Your task to perform on an android device: Open Chrome and go to the settings page Image 0: 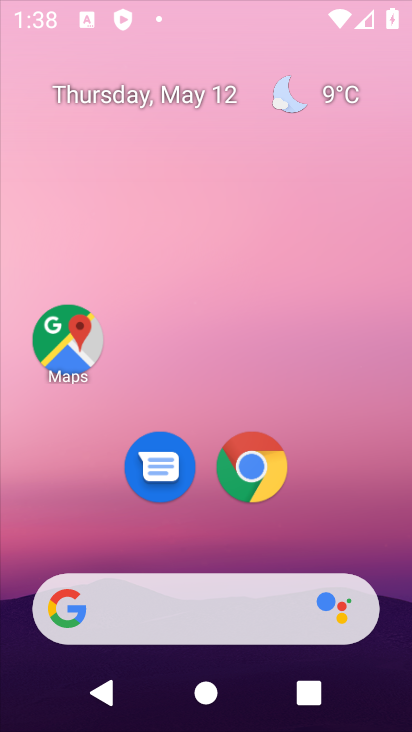
Step 0: click (255, 216)
Your task to perform on an android device: Open Chrome and go to the settings page Image 1: 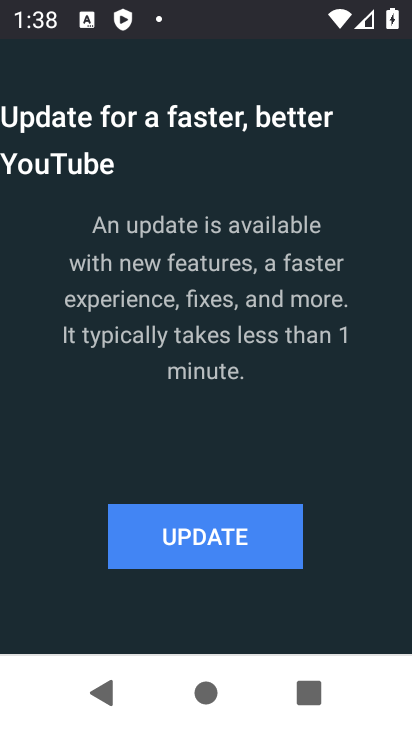
Step 1: press back button
Your task to perform on an android device: Open Chrome and go to the settings page Image 2: 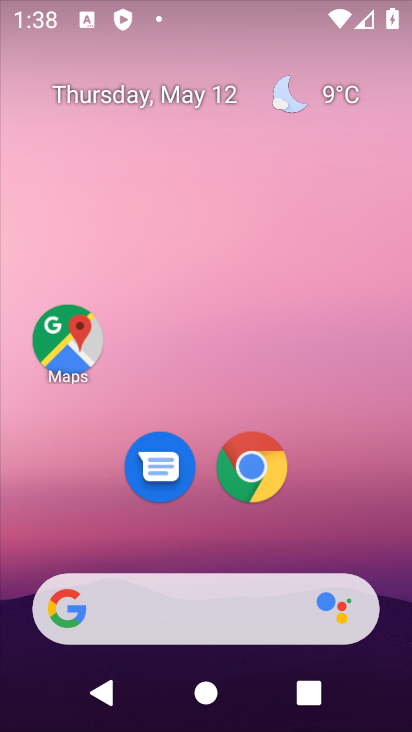
Step 2: drag from (270, 502) to (265, 264)
Your task to perform on an android device: Open Chrome and go to the settings page Image 3: 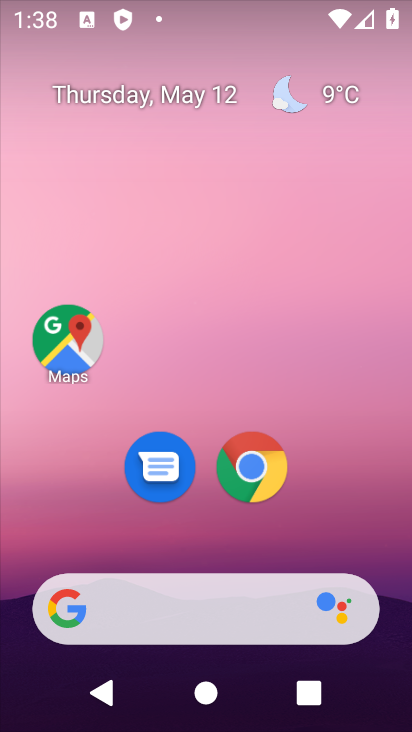
Step 3: drag from (297, 569) to (305, 253)
Your task to perform on an android device: Open Chrome and go to the settings page Image 4: 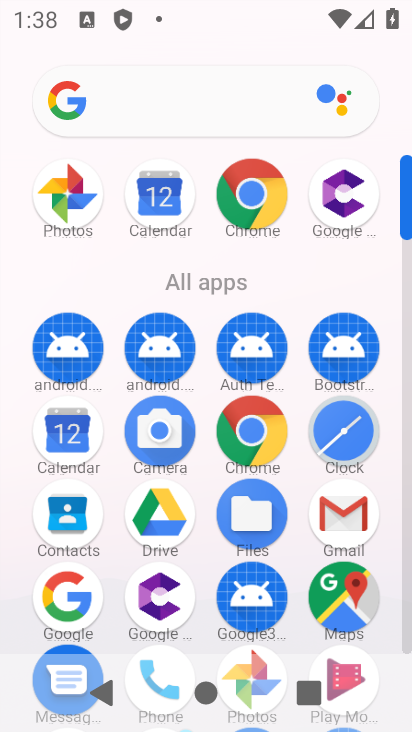
Step 4: click (258, 194)
Your task to perform on an android device: Open Chrome and go to the settings page Image 5: 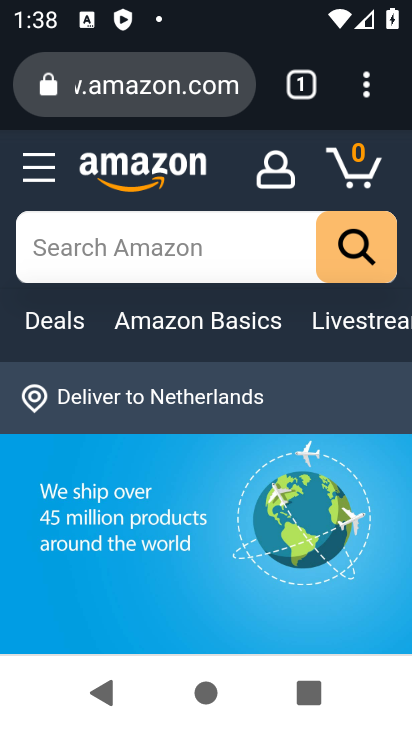
Step 5: click (349, 78)
Your task to perform on an android device: Open Chrome and go to the settings page Image 6: 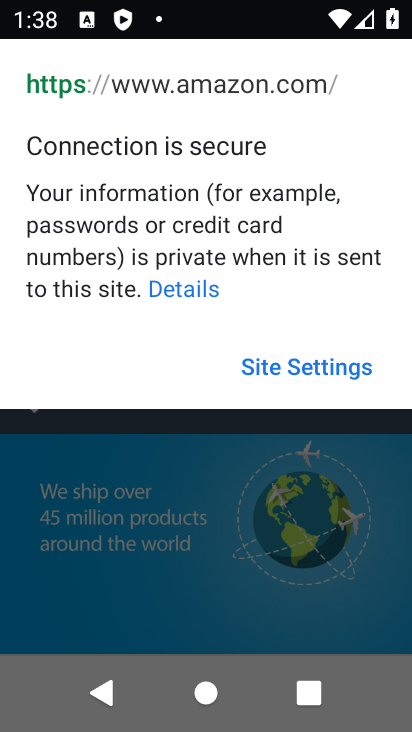
Step 6: press back button
Your task to perform on an android device: Open Chrome and go to the settings page Image 7: 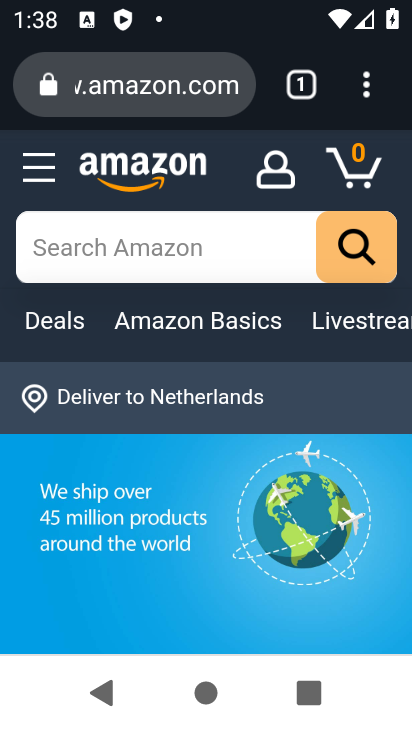
Step 7: click (345, 74)
Your task to perform on an android device: Open Chrome and go to the settings page Image 8: 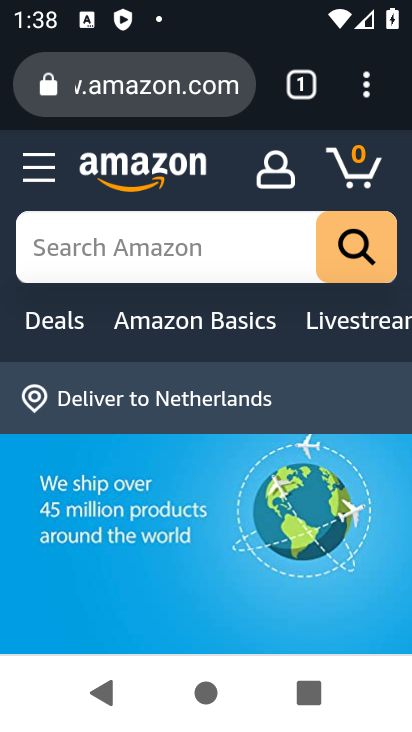
Step 8: click (346, 83)
Your task to perform on an android device: Open Chrome and go to the settings page Image 9: 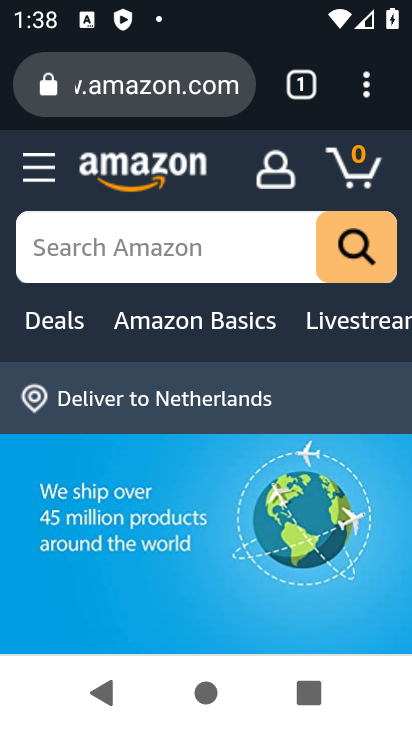
Step 9: click (359, 84)
Your task to perform on an android device: Open Chrome and go to the settings page Image 10: 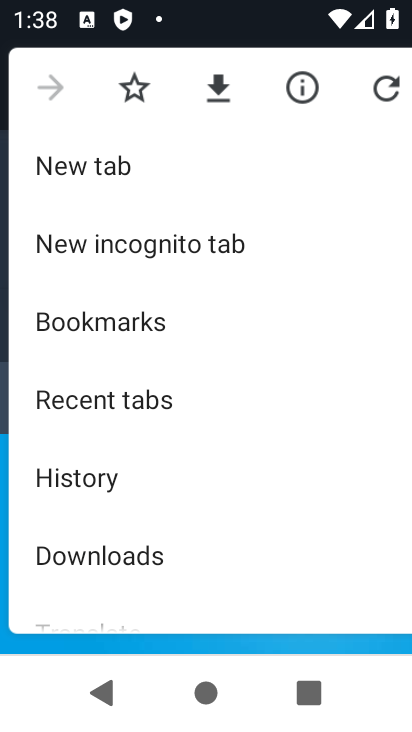
Step 10: drag from (186, 553) to (240, 170)
Your task to perform on an android device: Open Chrome and go to the settings page Image 11: 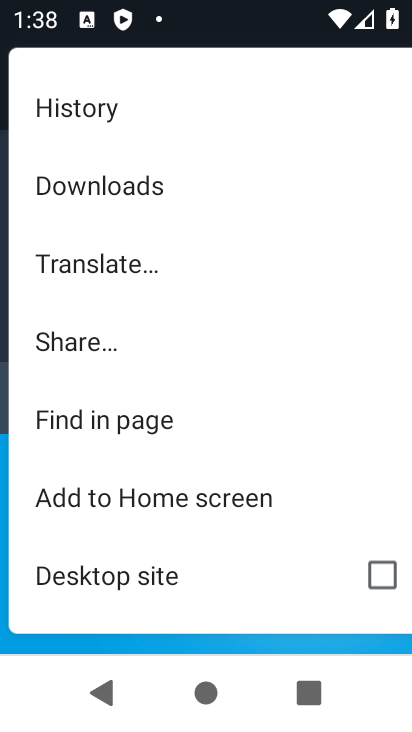
Step 11: drag from (166, 517) to (321, 186)
Your task to perform on an android device: Open Chrome and go to the settings page Image 12: 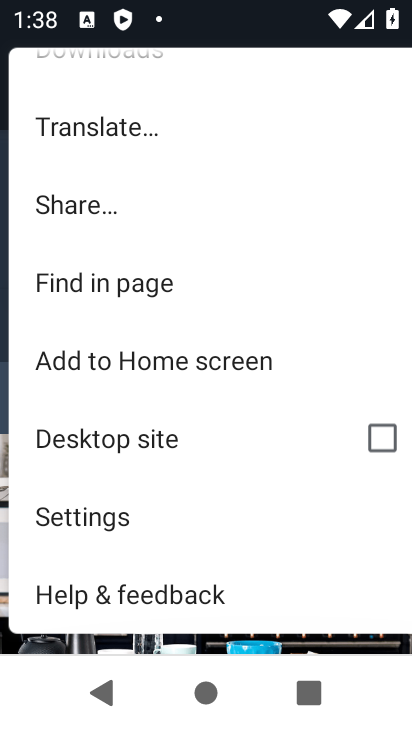
Step 12: click (89, 510)
Your task to perform on an android device: Open Chrome and go to the settings page Image 13: 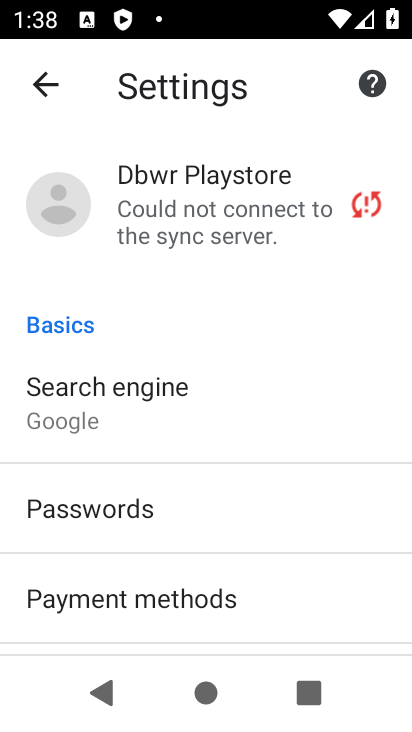
Step 13: task complete